Your task to perform on an android device: turn off wifi Image 0: 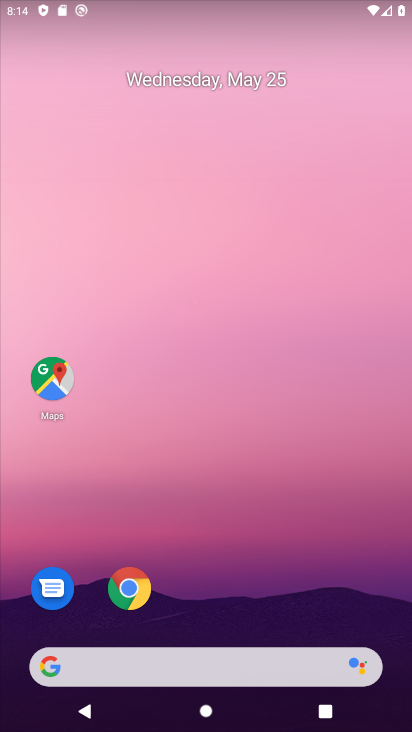
Step 0: press home button
Your task to perform on an android device: turn off wifi Image 1: 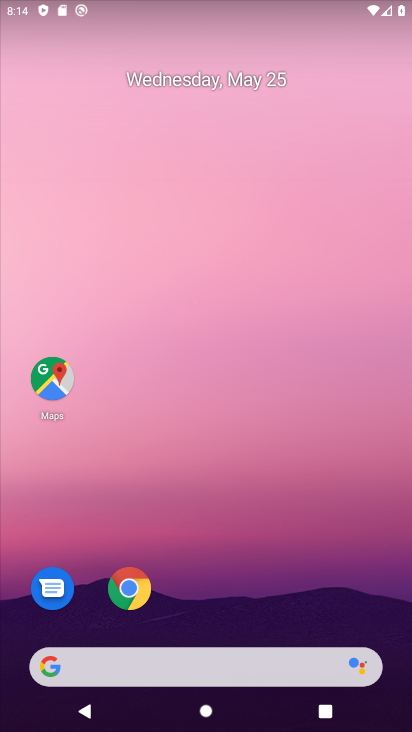
Step 1: drag from (45, 0) to (29, 466)
Your task to perform on an android device: turn off wifi Image 2: 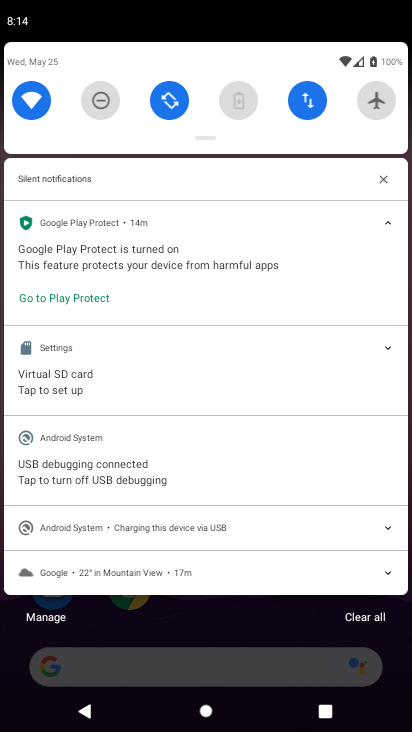
Step 2: click (29, 107)
Your task to perform on an android device: turn off wifi Image 3: 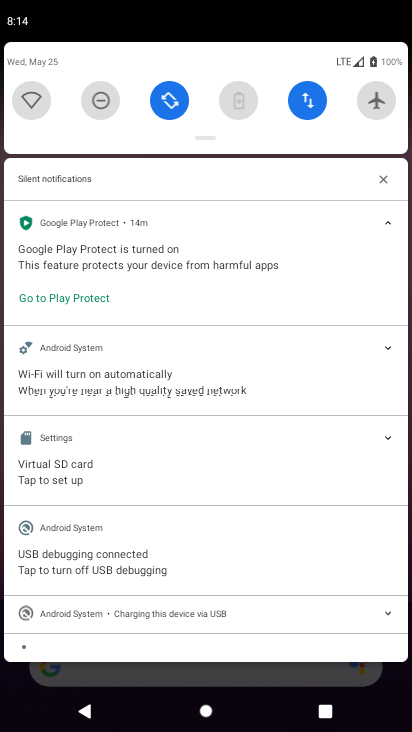
Step 3: task complete